Your task to perform on an android device: Go to network settings Image 0: 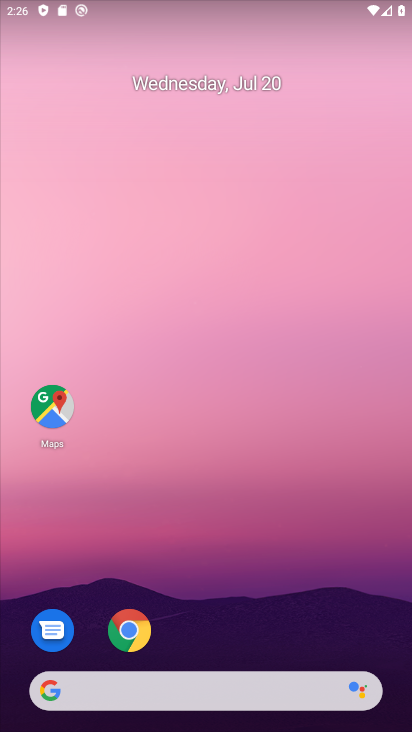
Step 0: drag from (298, 729) to (250, 294)
Your task to perform on an android device: Go to network settings Image 1: 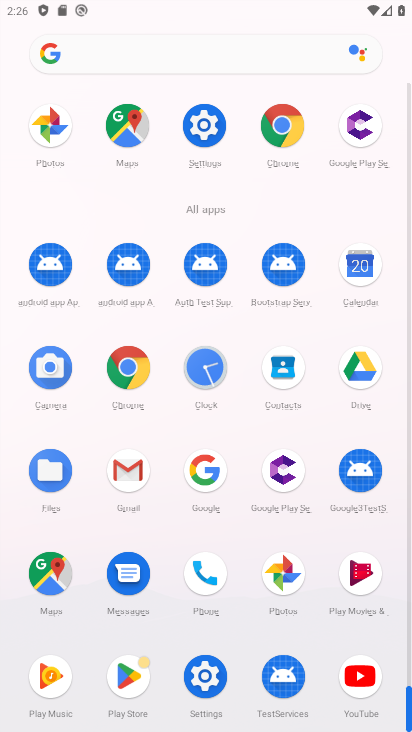
Step 1: click (197, 123)
Your task to perform on an android device: Go to network settings Image 2: 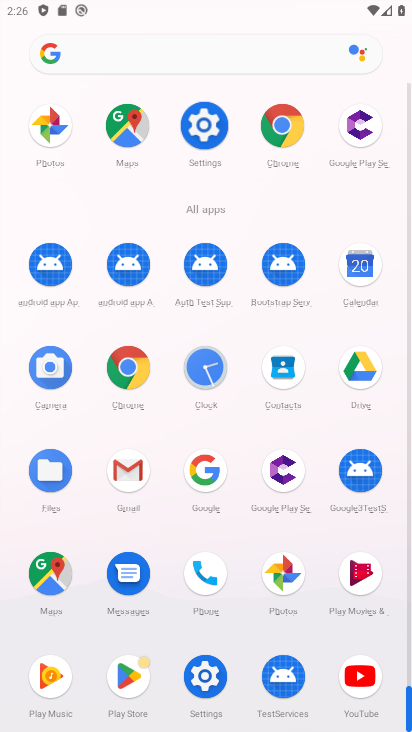
Step 2: click (199, 122)
Your task to perform on an android device: Go to network settings Image 3: 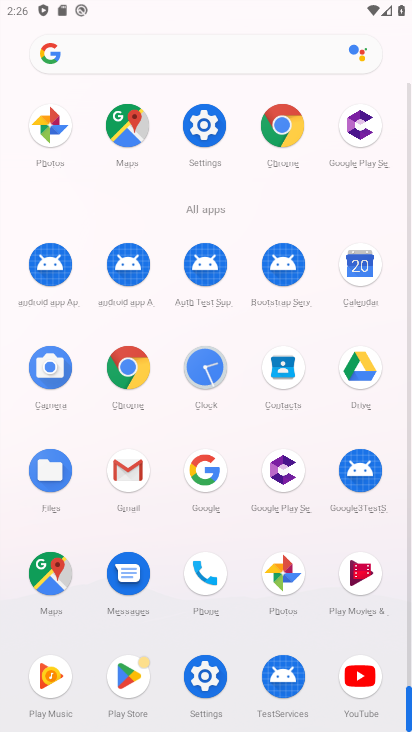
Step 3: click (200, 122)
Your task to perform on an android device: Go to network settings Image 4: 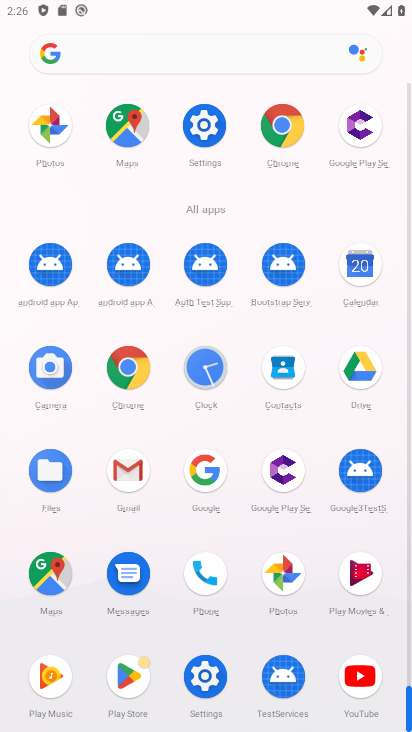
Step 4: click (201, 122)
Your task to perform on an android device: Go to network settings Image 5: 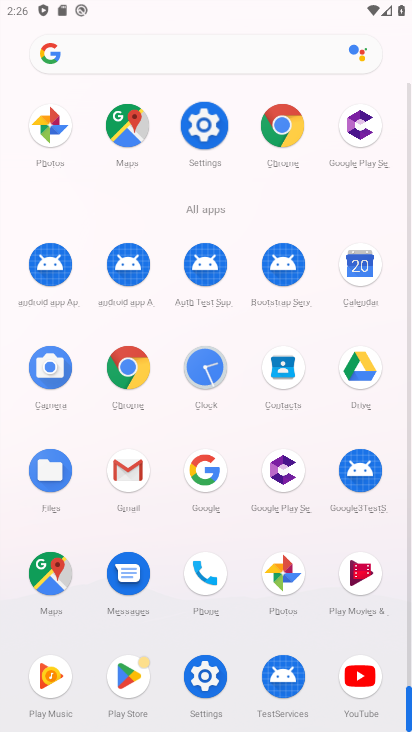
Step 5: click (201, 122)
Your task to perform on an android device: Go to network settings Image 6: 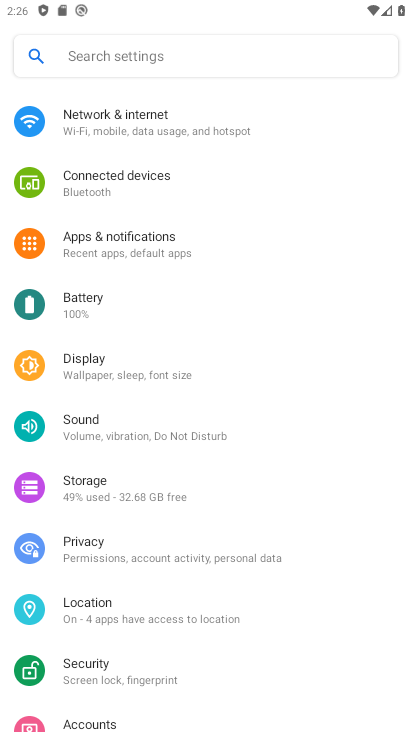
Step 6: click (201, 122)
Your task to perform on an android device: Go to network settings Image 7: 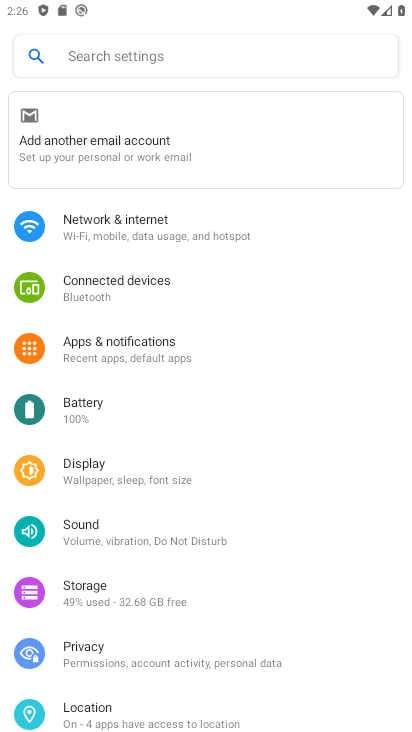
Step 7: click (102, 242)
Your task to perform on an android device: Go to network settings Image 8: 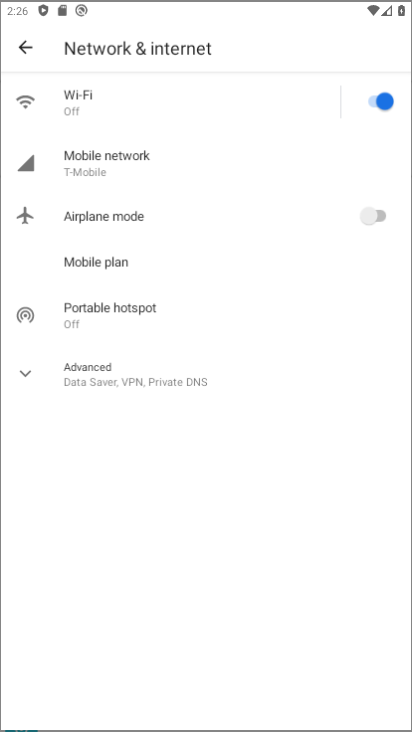
Step 8: click (103, 243)
Your task to perform on an android device: Go to network settings Image 9: 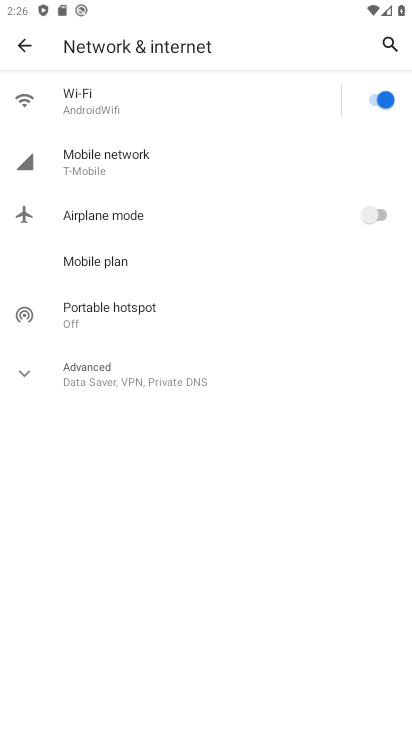
Step 9: click (103, 243)
Your task to perform on an android device: Go to network settings Image 10: 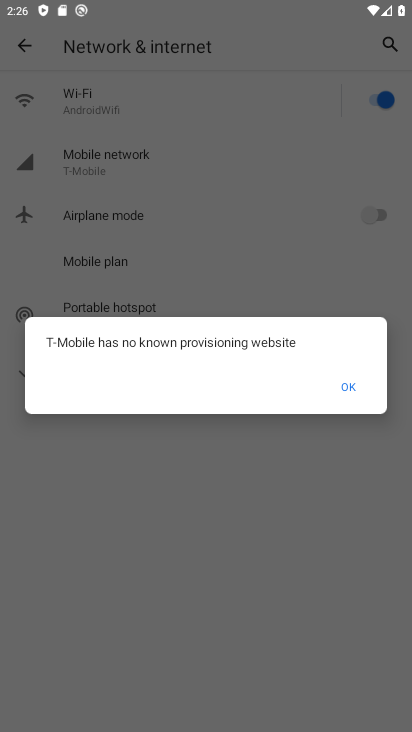
Step 10: click (119, 222)
Your task to perform on an android device: Go to network settings Image 11: 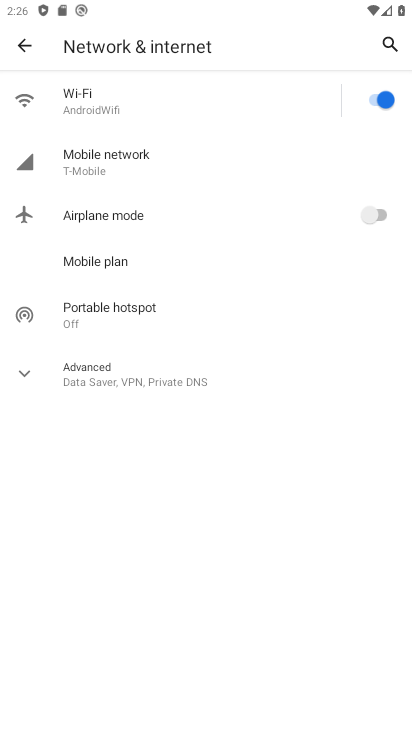
Step 11: click (359, 387)
Your task to perform on an android device: Go to network settings Image 12: 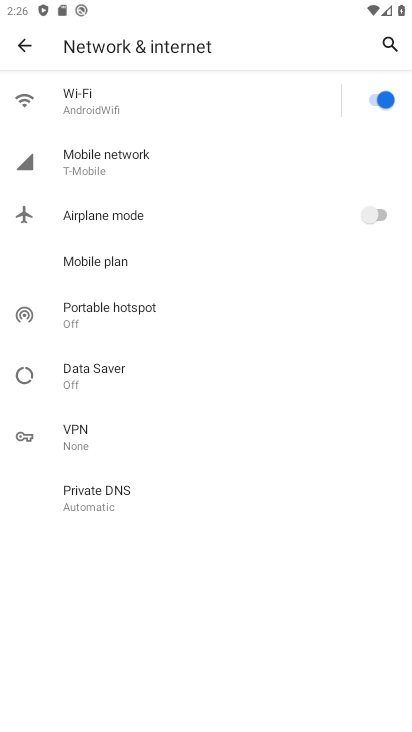
Step 12: task complete